Your task to perform on an android device: open app "Adobe Acrobat Reader" (install if not already installed) Image 0: 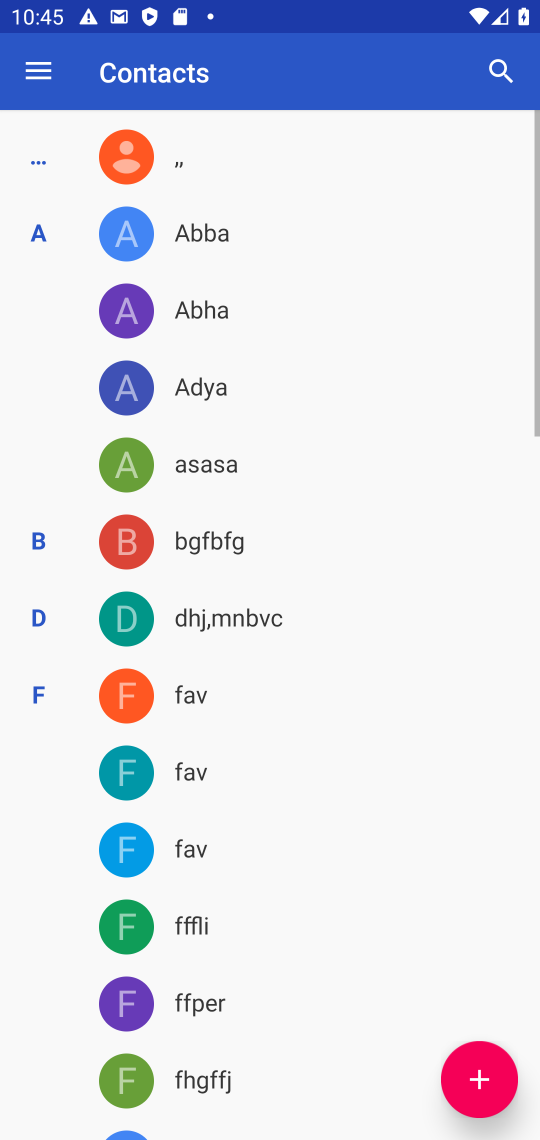
Step 0: press home button
Your task to perform on an android device: open app "Adobe Acrobat Reader" (install if not already installed) Image 1: 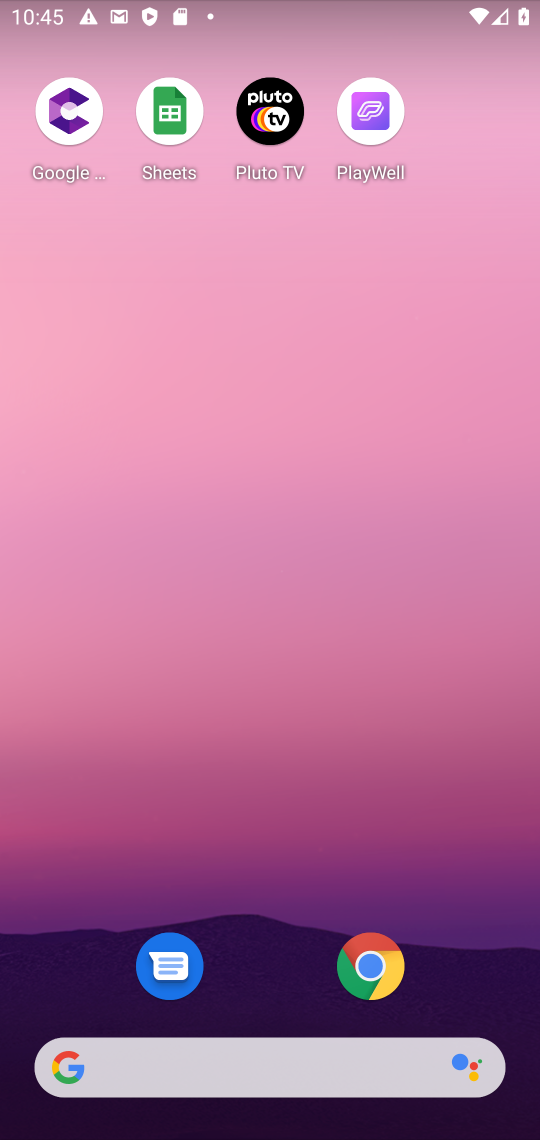
Step 1: drag from (458, 986) to (453, 115)
Your task to perform on an android device: open app "Adobe Acrobat Reader" (install if not already installed) Image 2: 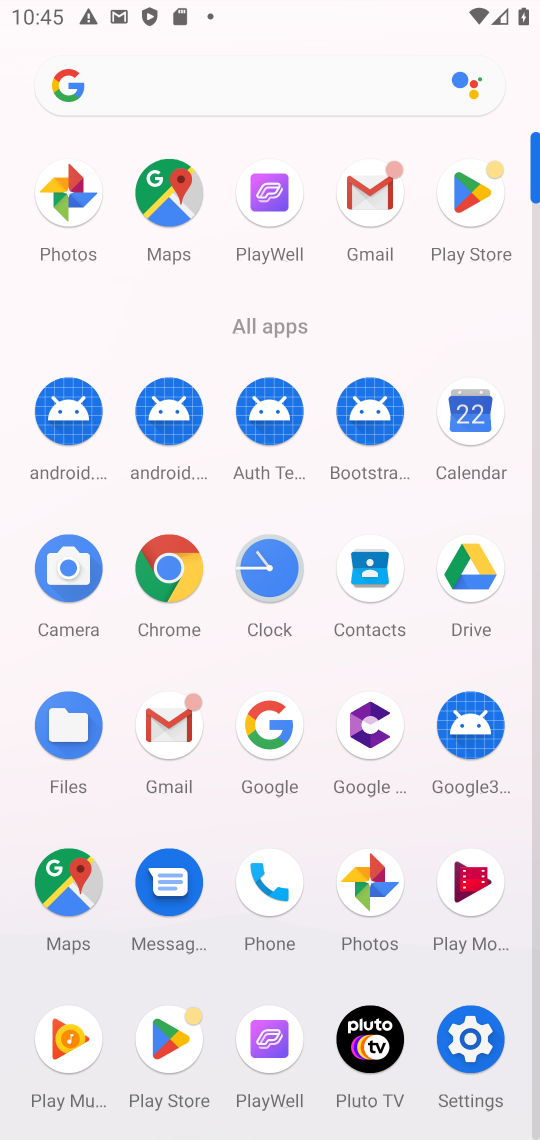
Step 2: click (477, 186)
Your task to perform on an android device: open app "Adobe Acrobat Reader" (install if not already installed) Image 3: 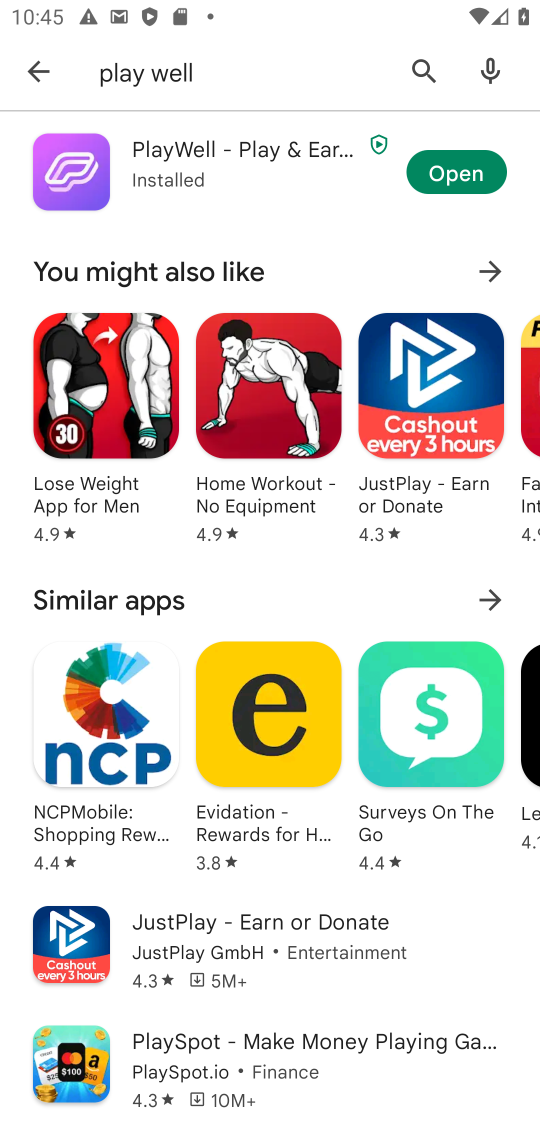
Step 3: press back button
Your task to perform on an android device: open app "Adobe Acrobat Reader" (install if not already installed) Image 4: 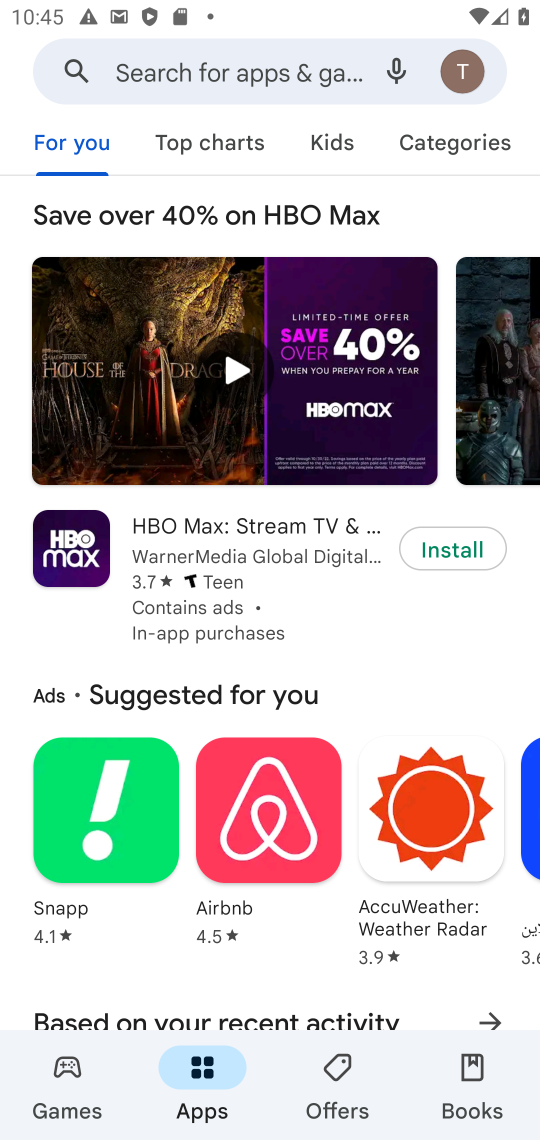
Step 4: click (206, 86)
Your task to perform on an android device: open app "Adobe Acrobat Reader" (install if not already installed) Image 5: 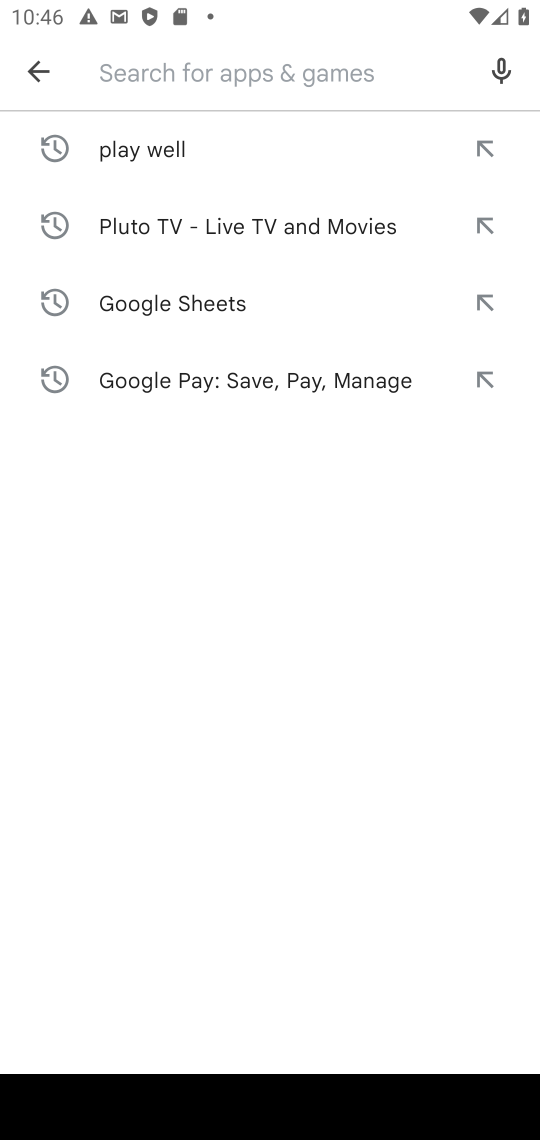
Step 5: press enter
Your task to perform on an android device: open app "Adobe Acrobat Reader" (install if not already installed) Image 6: 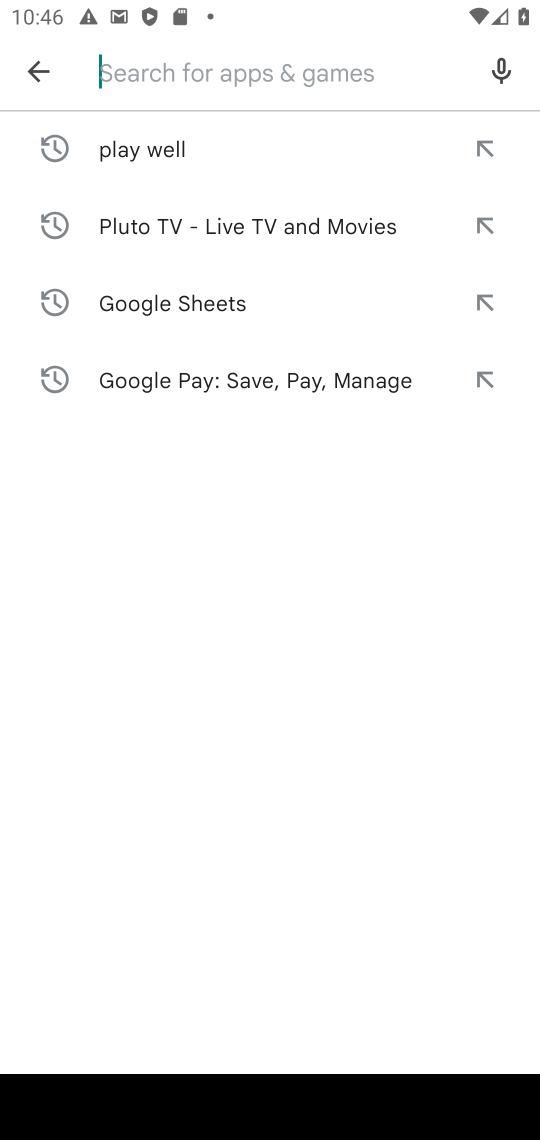
Step 6: type "Adobe Acrobat Reader"
Your task to perform on an android device: open app "Adobe Acrobat Reader" (install if not already installed) Image 7: 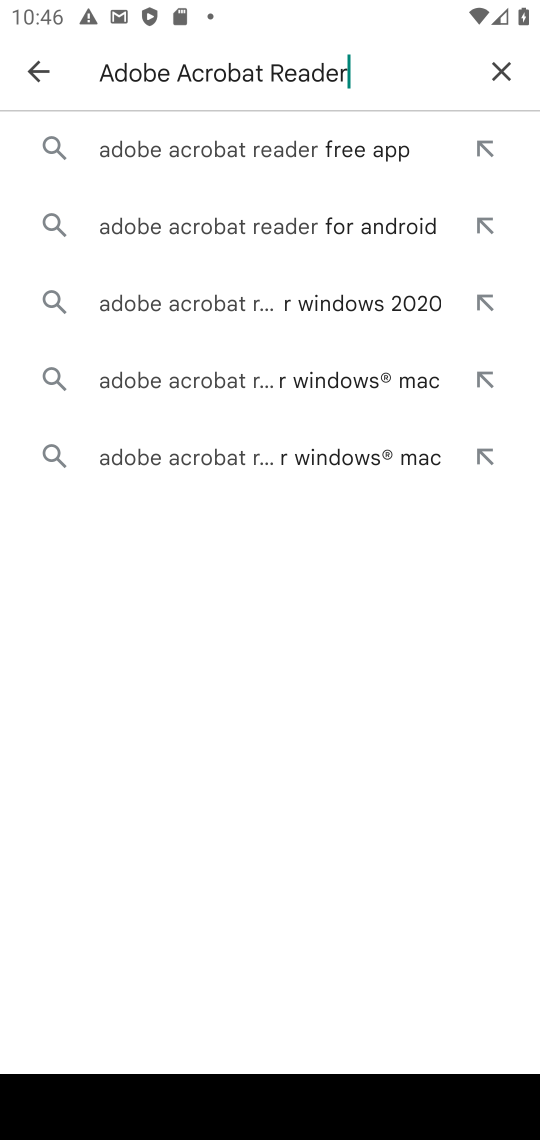
Step 7: click (292, 150)
Your task to perform on an android device: open app "Adobe Acrobat Reader" (install if not already installed) Image 8: 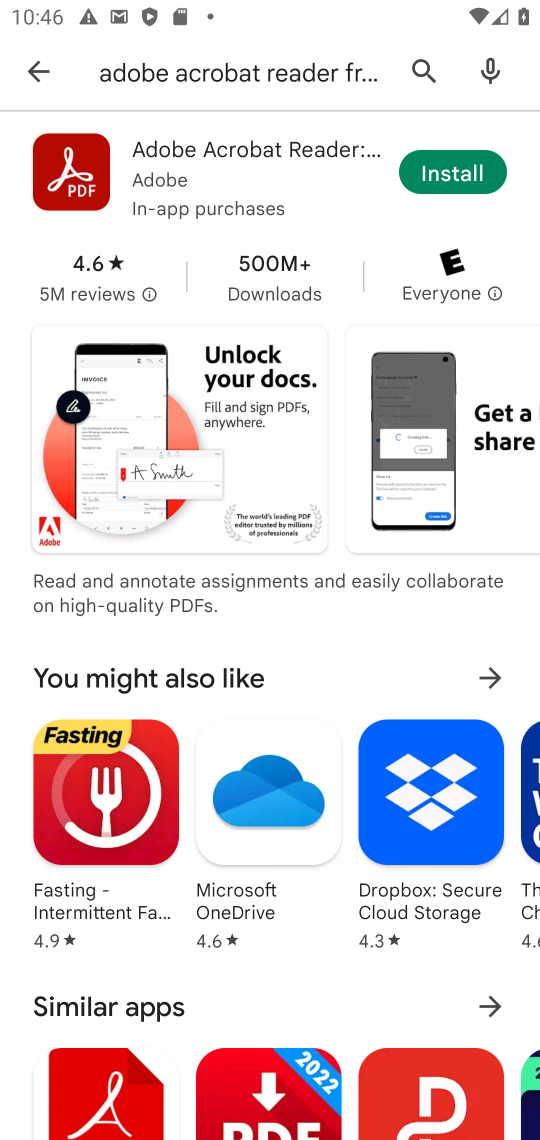
Step 8: click (458, 190)
Your task to perform on an android device: open app "Adobe Acrobat Reader" (install if not already installed) Image 9: 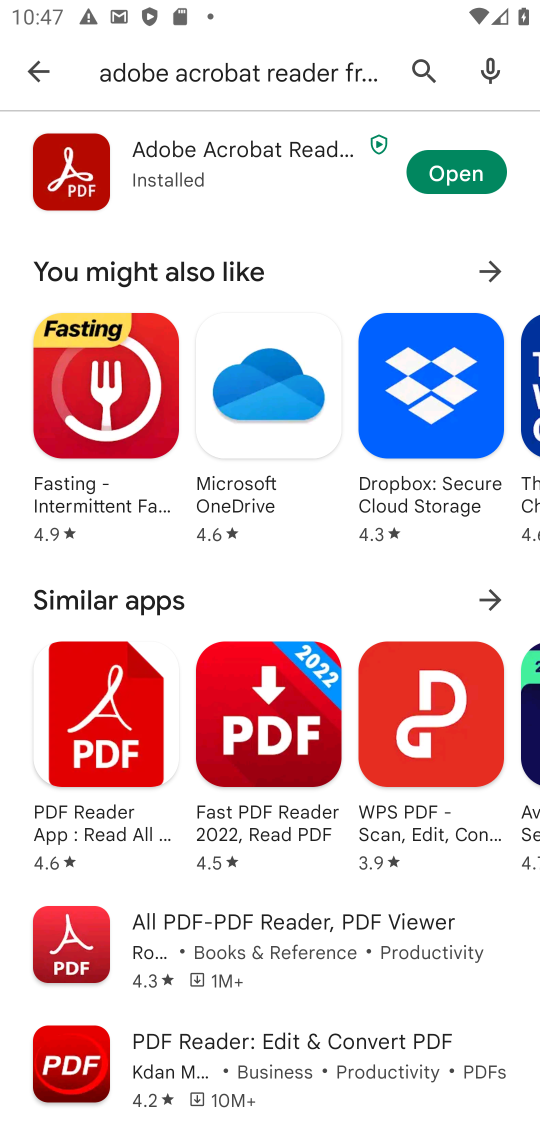
Step 9: click (452, 178)
Your task to perform on an android device: open app "Adobe Acrobat Reader" (install if not already installed) Image 10: 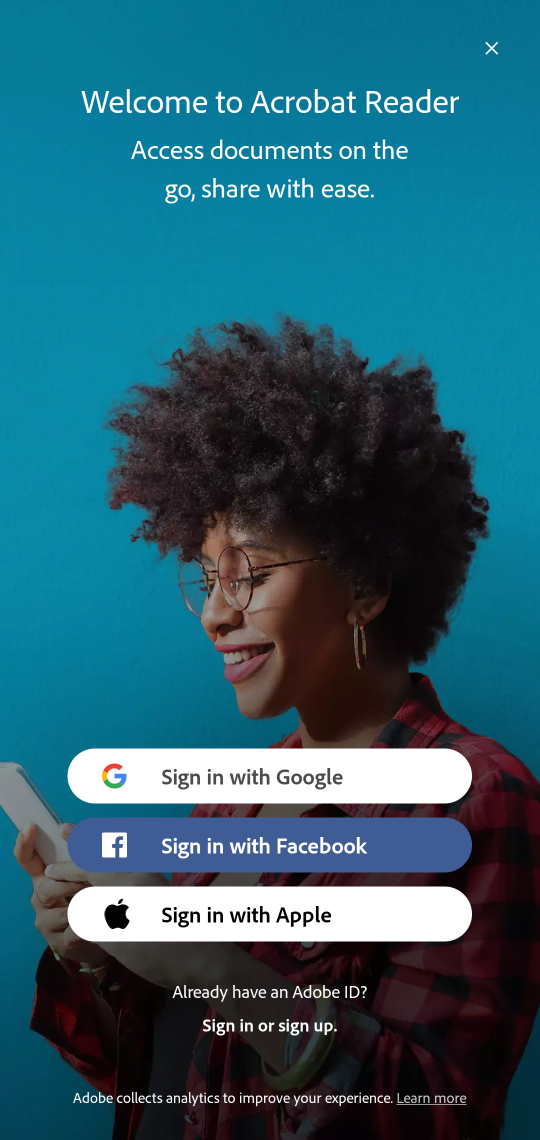
Step 10: task complete